Your task to perform on an android device: turn off location Image 0: 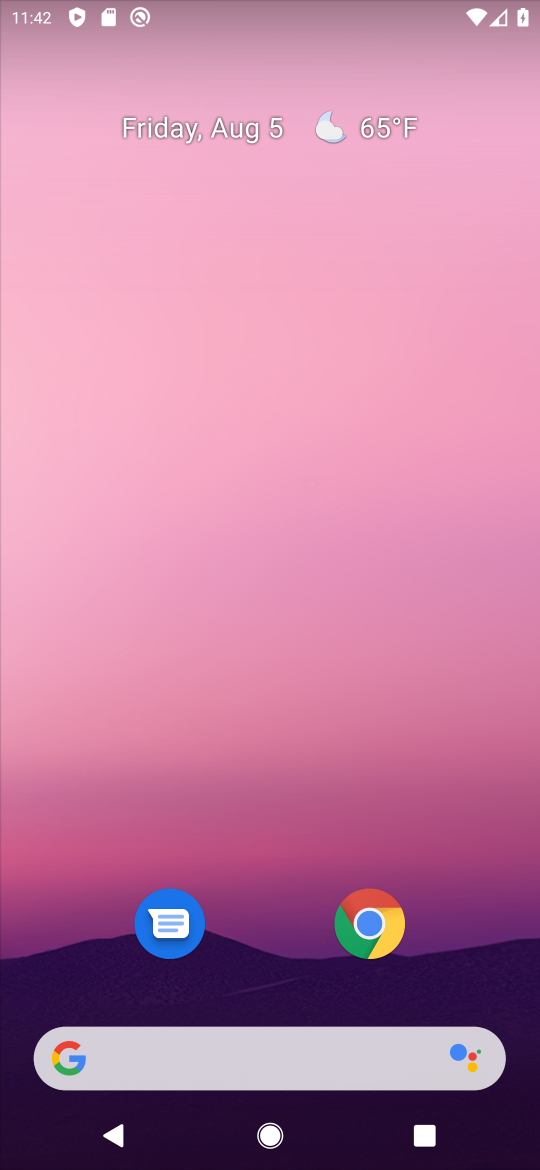
Step 0: drag from (492, 970) to (389, 338)
Your task to perform on an android device: turn off location Image 1: 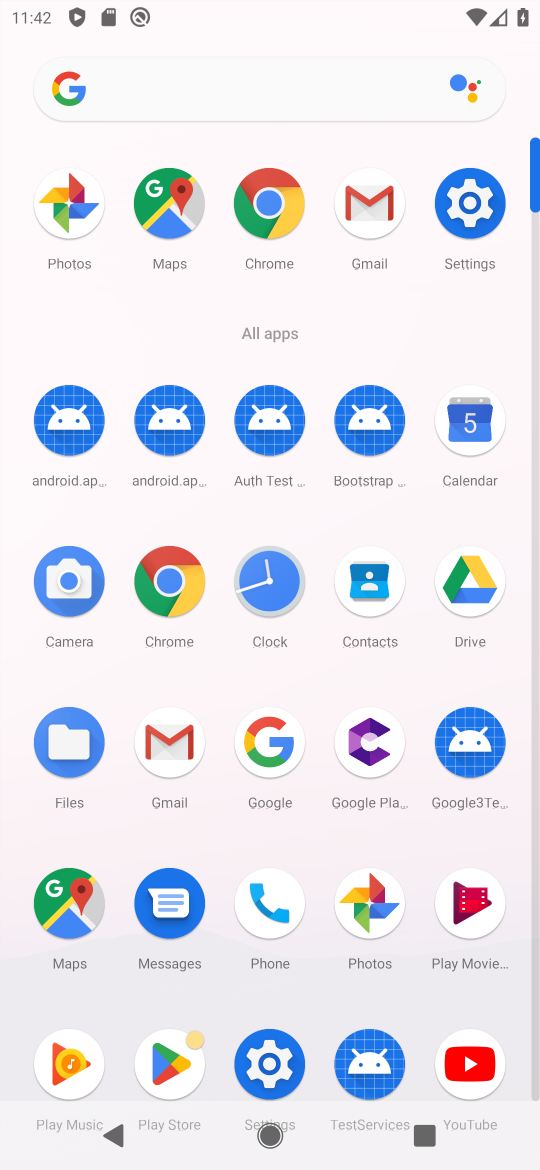
Step 1: click (464, 211)
Your task to perform on an android device: turn off location Image 2: 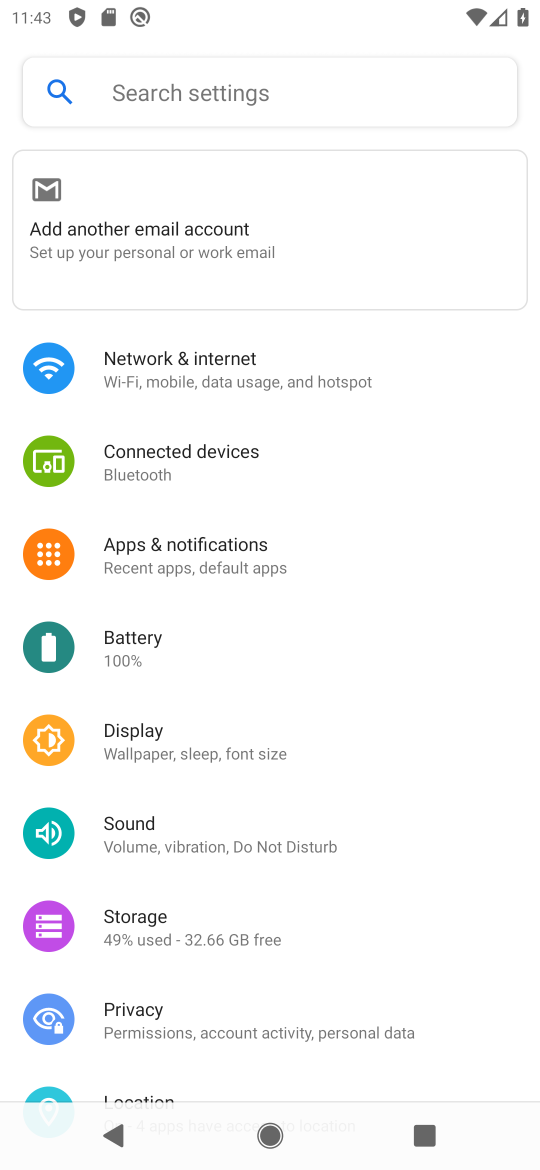
Step 2: drag from (335, 1083) to (287, 624)
Your task to perform on an android device: turn off location Image 3: 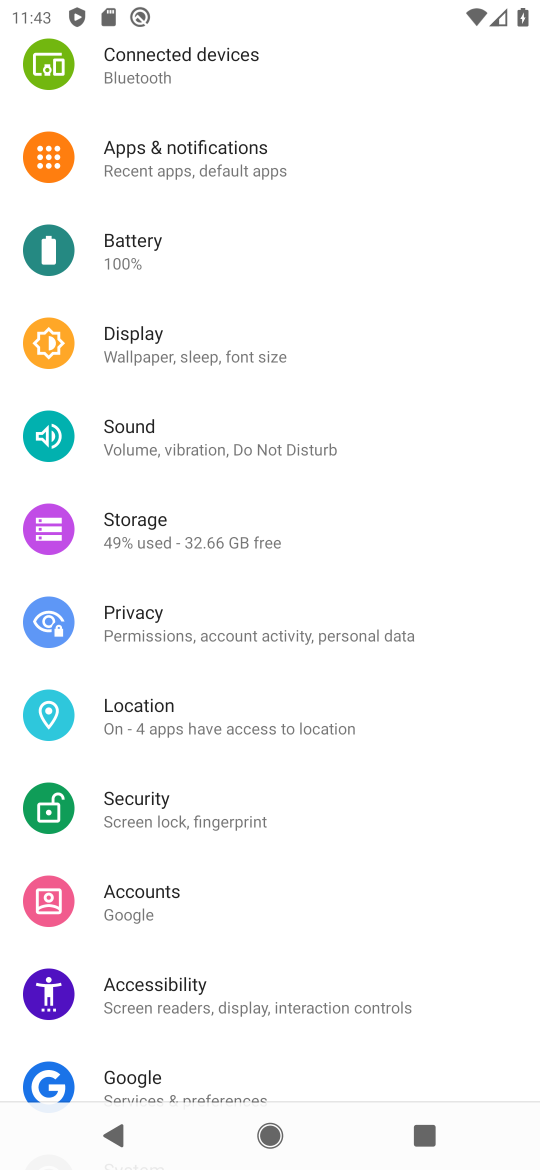
Step 3: click (248, 746)
Your task to perform on an android device: turn off location Image 4: 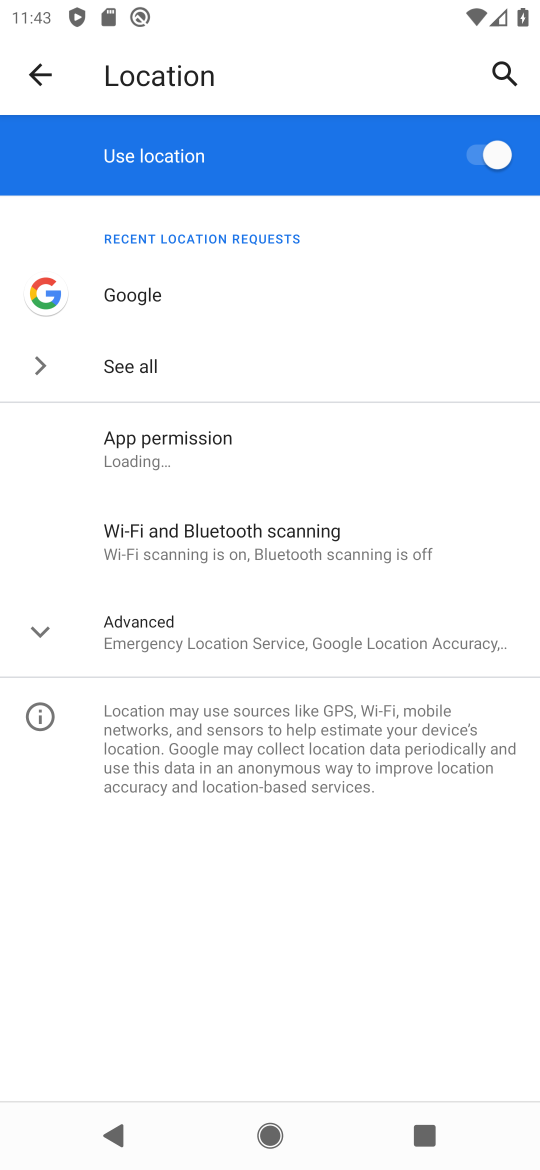
Step 4: click (480, 181)
Your task to perform on an android device: turn off location Image 5: 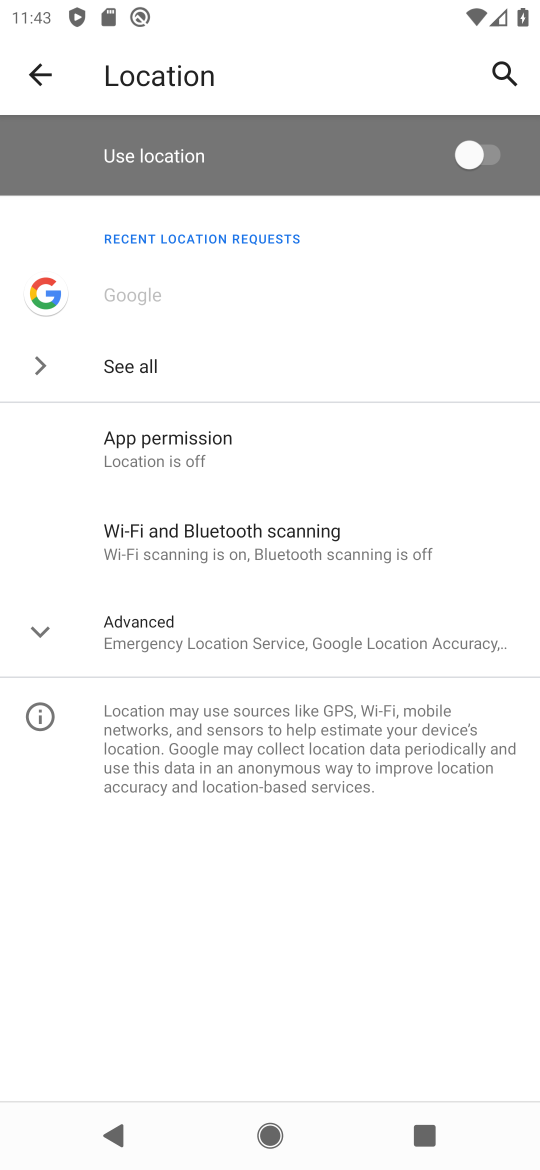
Step 5: task complete